Your task to perform on an android device: Open settings Image 0: 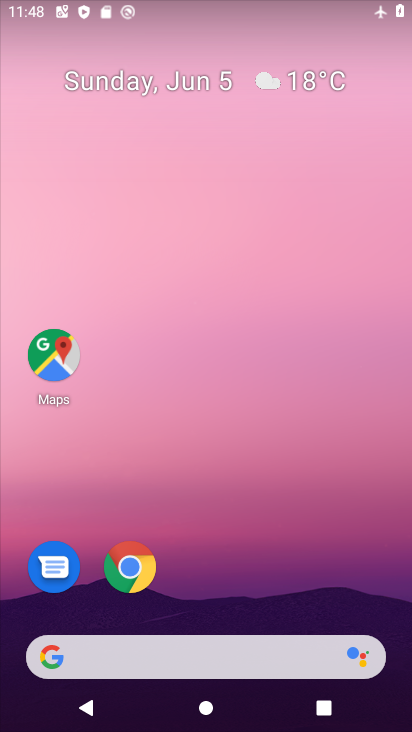
Step 0: drag from (258, 574) to (322, 18)
Your task to perform on an android device: Open settings Image 1: 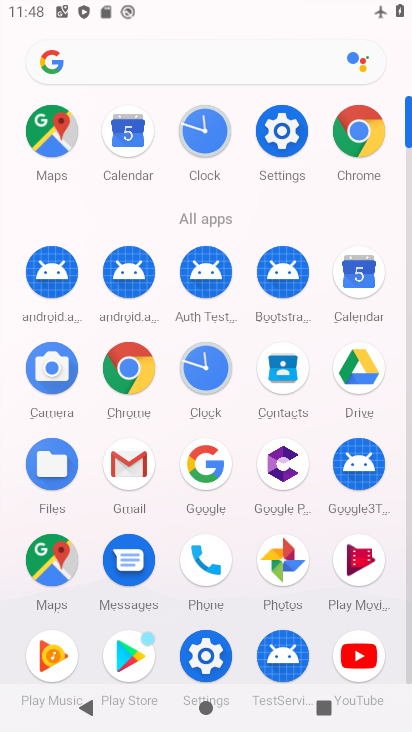
Step 1: click (291, 121)
Your task to perform on an android device: Open settings Image 2: 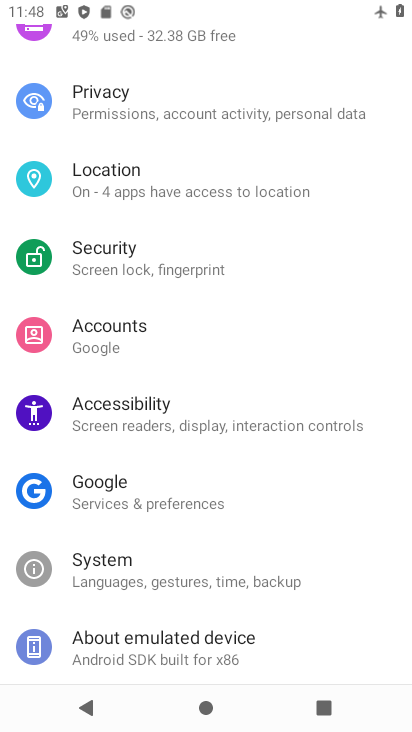
Step 2: task complete